Your task to perform on an android device: install app "Indeed Job Search" Image 0: 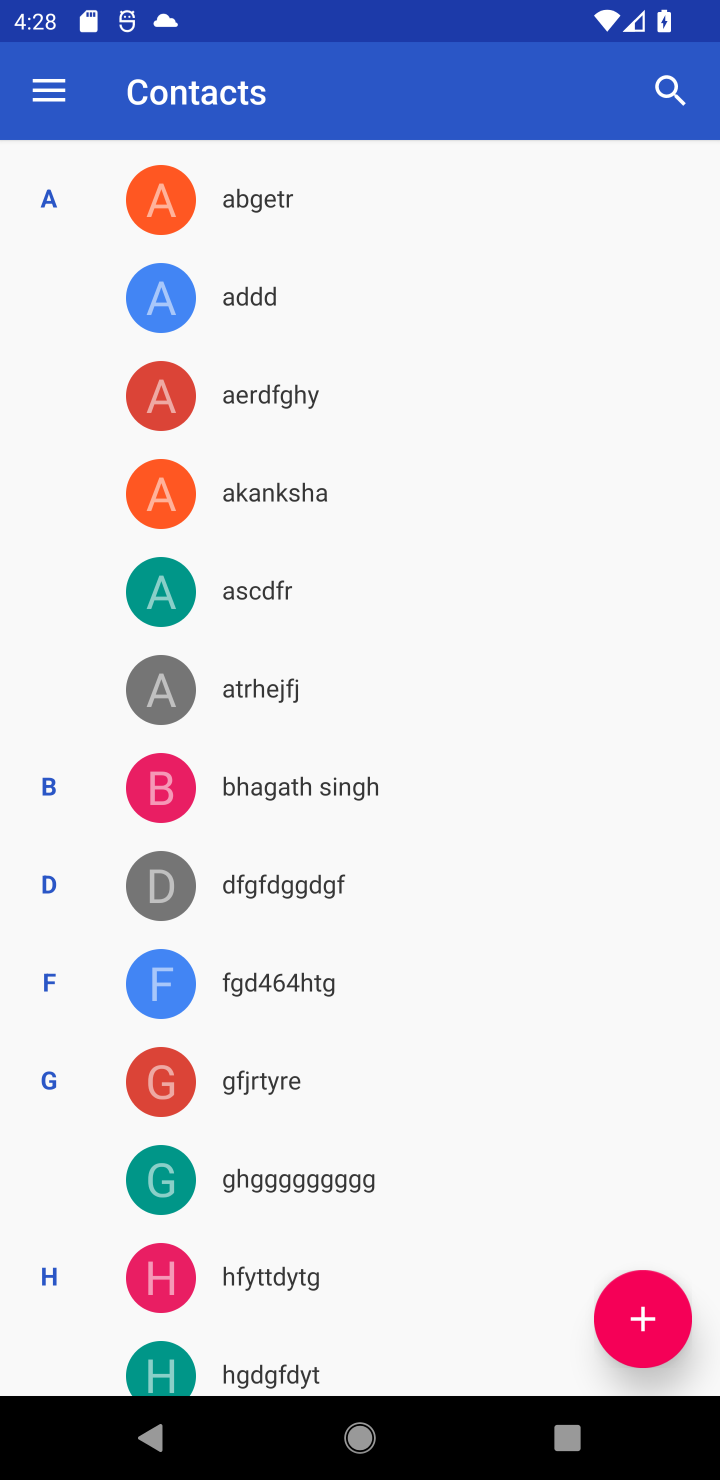
Step 0: press home button
Your task to perform on an android device: install app "Indeed Job Search" Image 1: 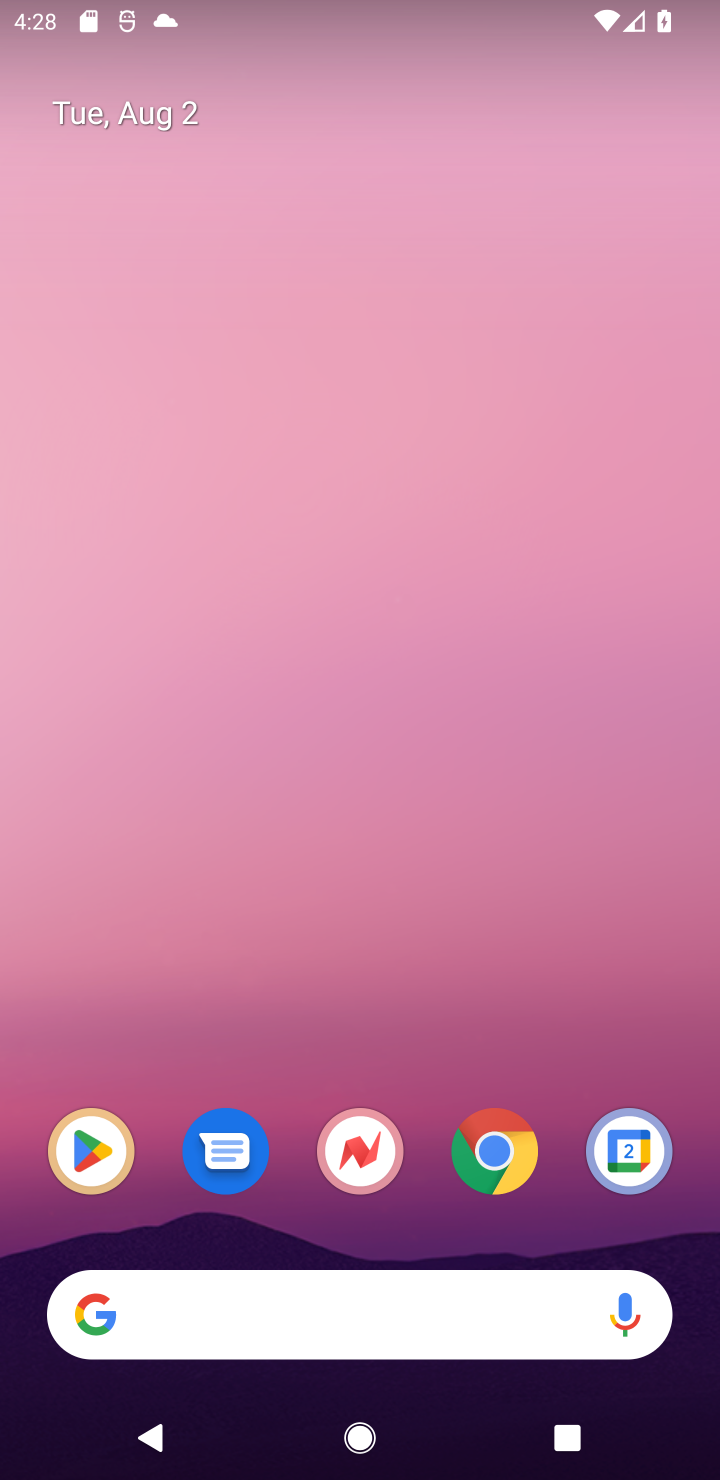
Step 1: drag from (416, 1276) to (458, 462)
Your task to perform on an android device: install app "Indeed Job Search" Image 2: 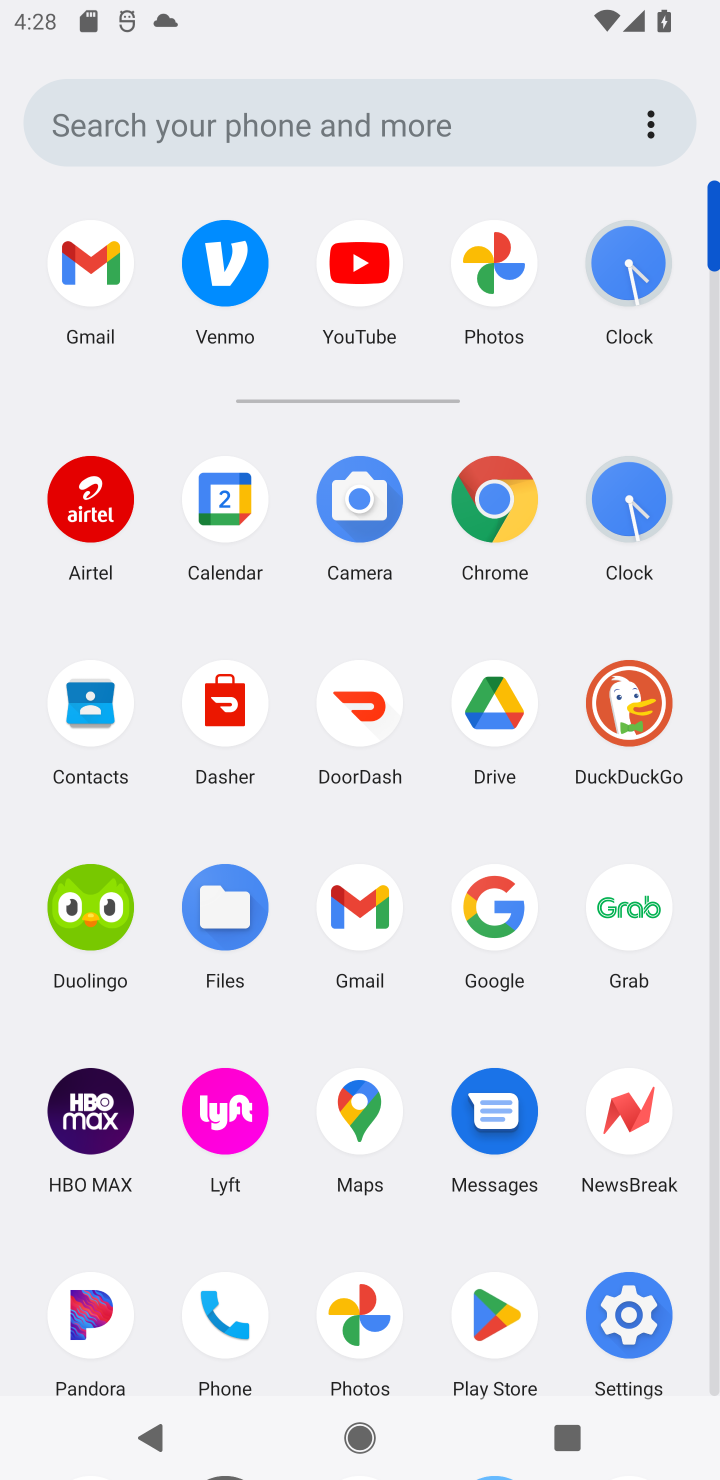
Step 2: click (521, 1323)
Your task to perform on an android device: install app "Indeed Job Search" Image 3: 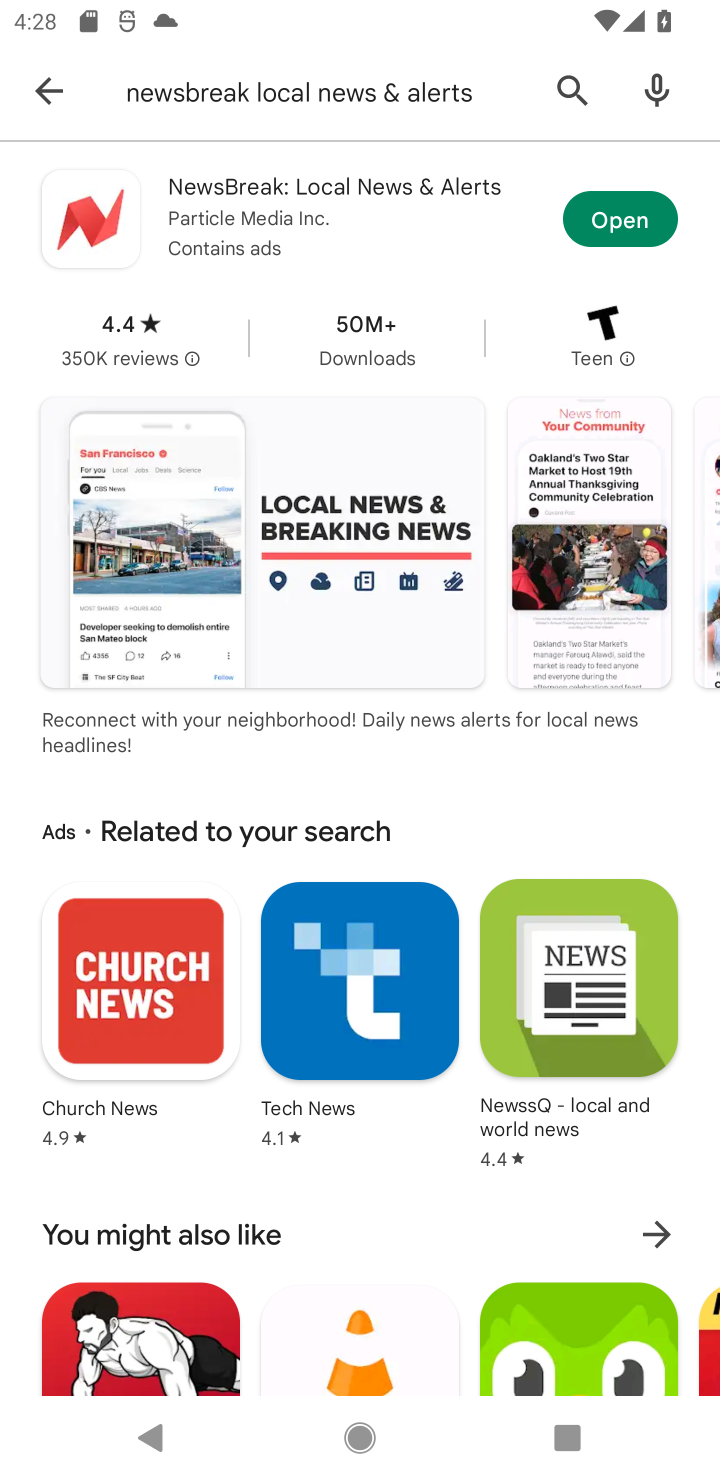
Step 3: click (40, 100)
Your task to perform on an android device: install app "Indeed Job Search" Image 4: 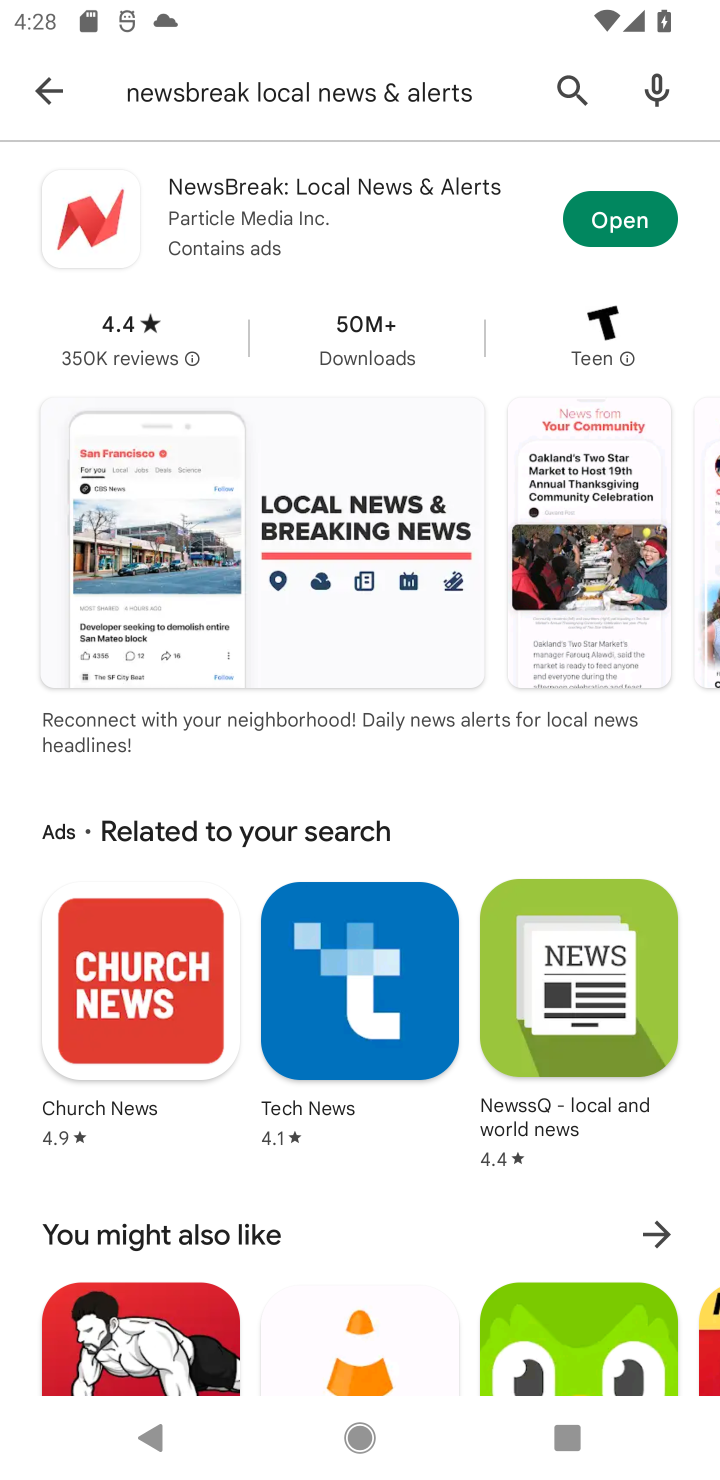
Step 4: click (53, 82)
Your task to perform on an android device: install app "Indeed Job Search" Image 5: 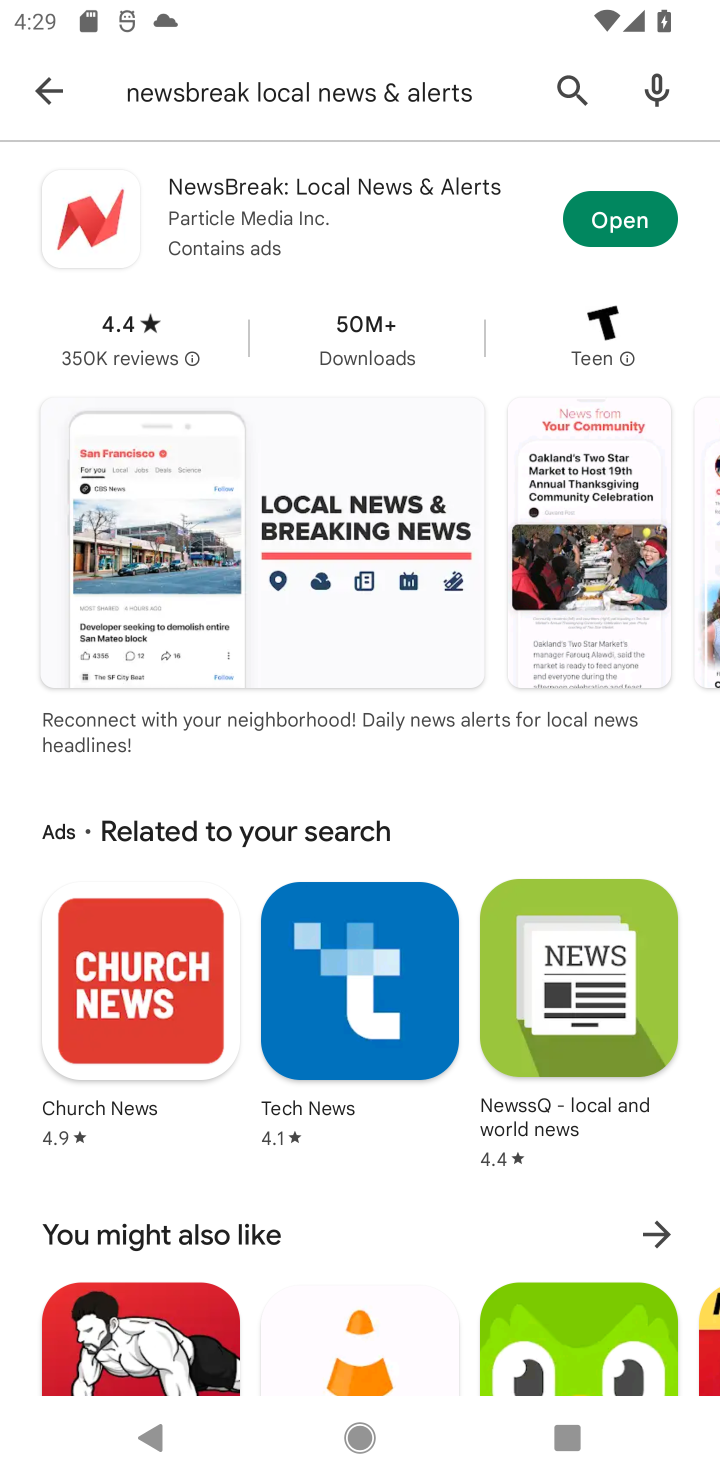
Step 5: click (53, 82)
Your task to perform on an android device: install app "Indeed Job Search" Image 6: 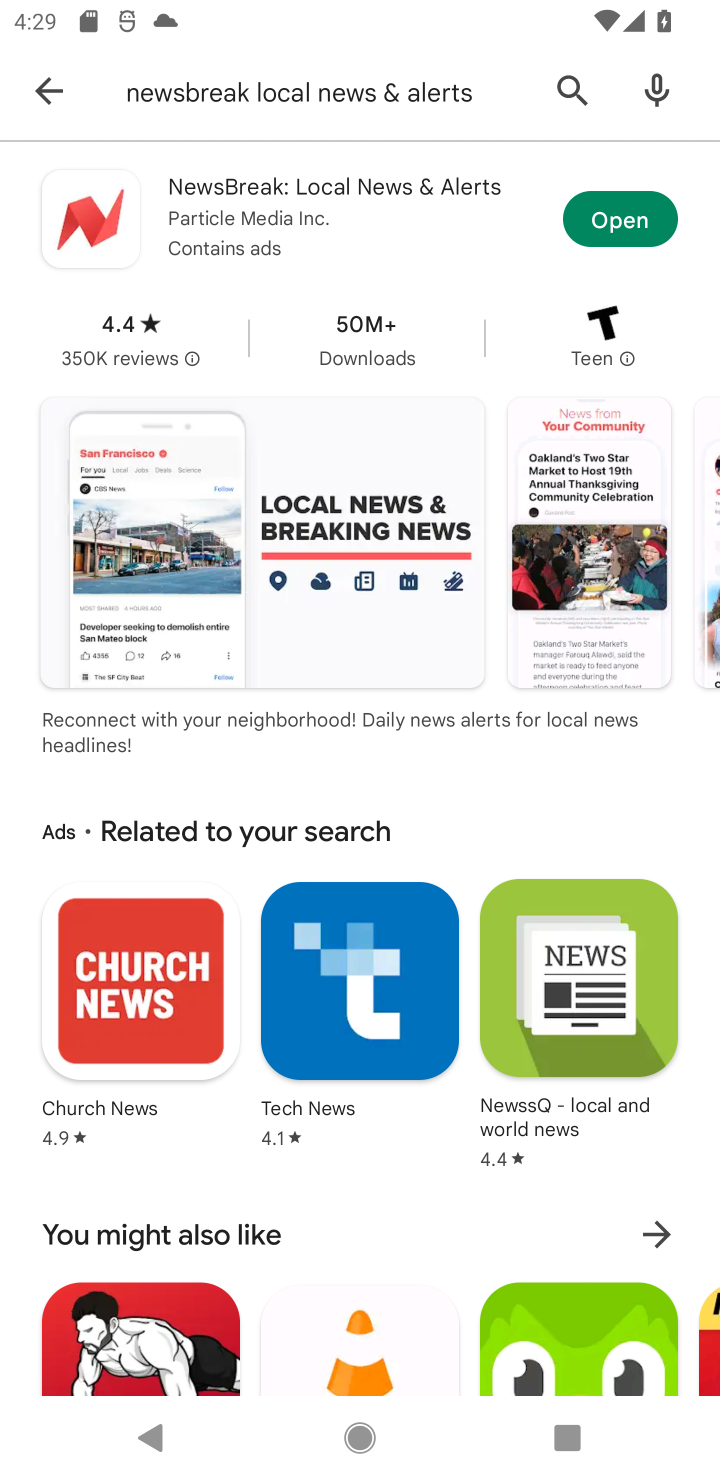
Step 6: click (53, 82)
Your task to perform on an android device: install app "Indeed Job Search" Image 7: 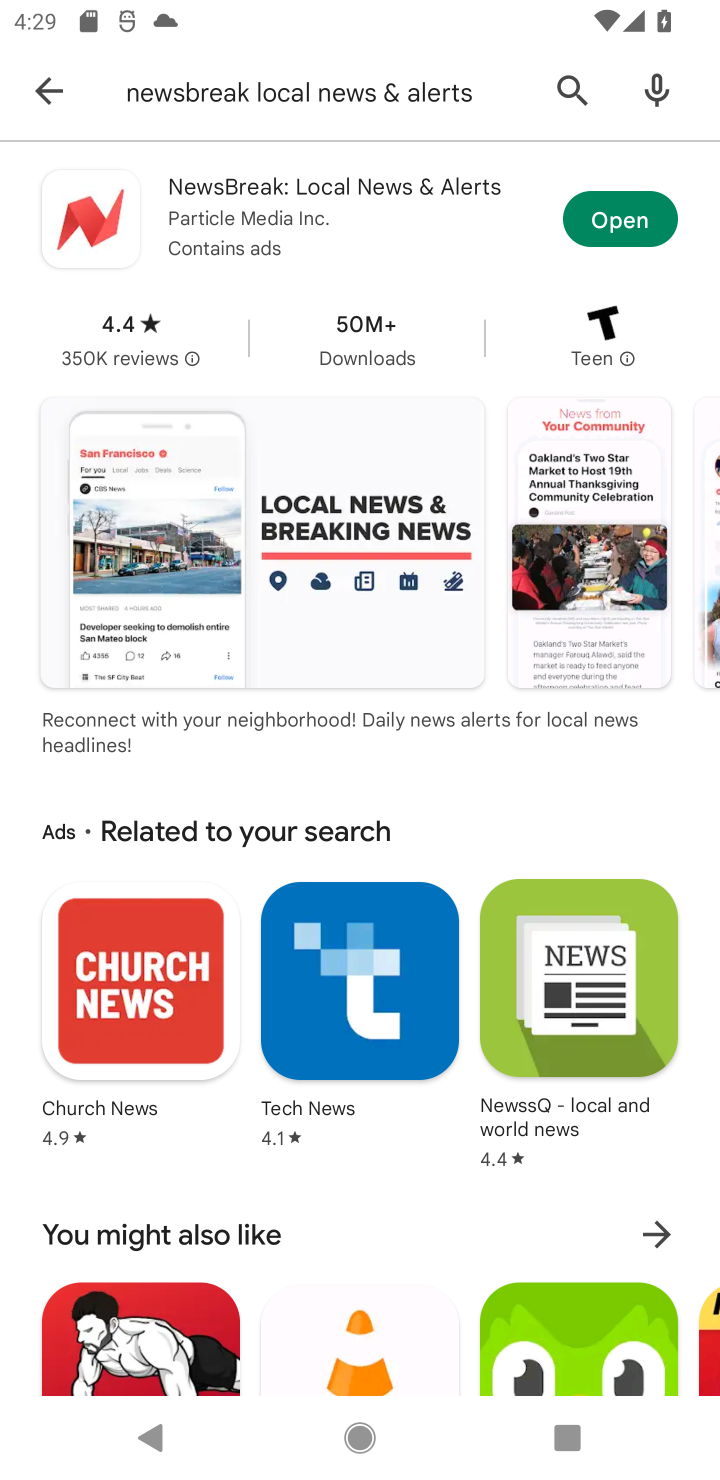
Step 7: click (53, 82)
Your task to perform on an android device: install app "Indeed Job Search" Image 8: 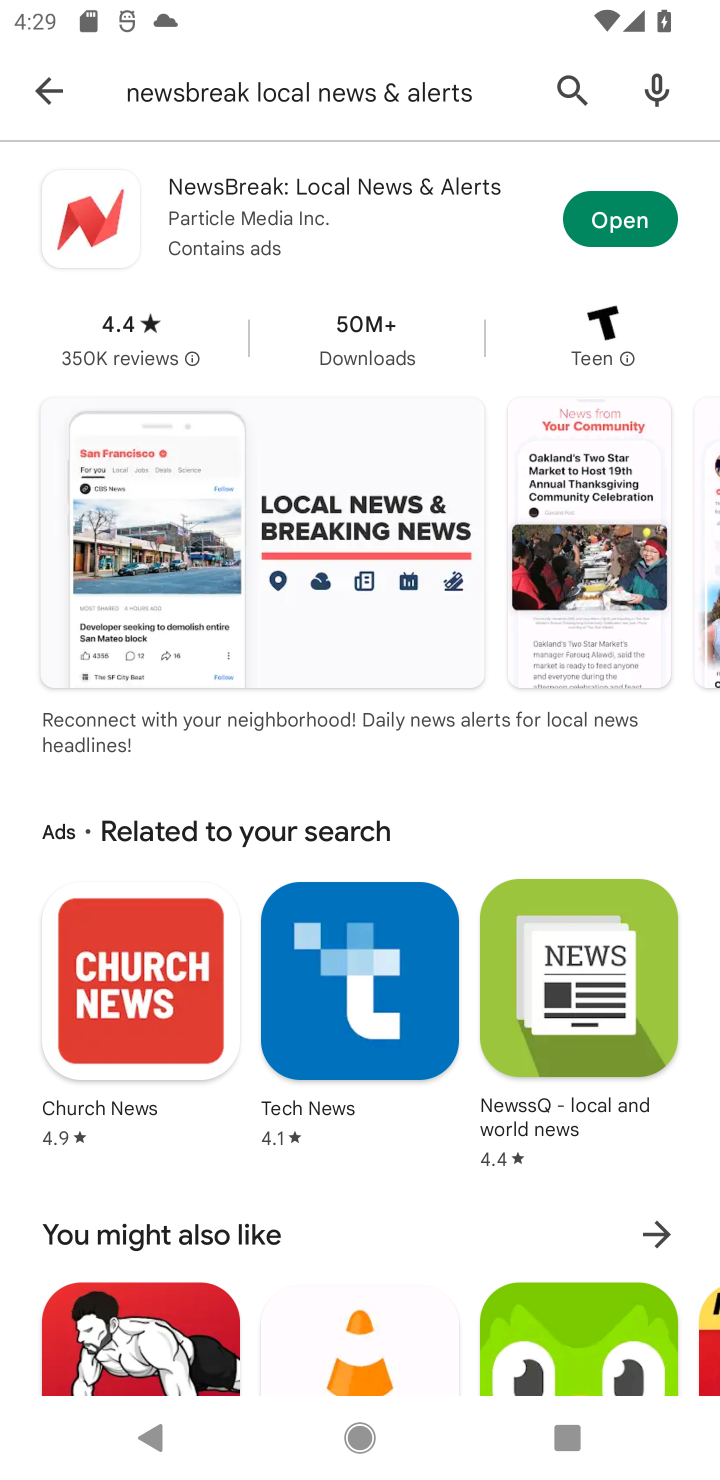
Step 8: drag from (263, 1230) to (255, 1320)
Your task to perform on an android device: install app "Indeed Job Search" Image 9: 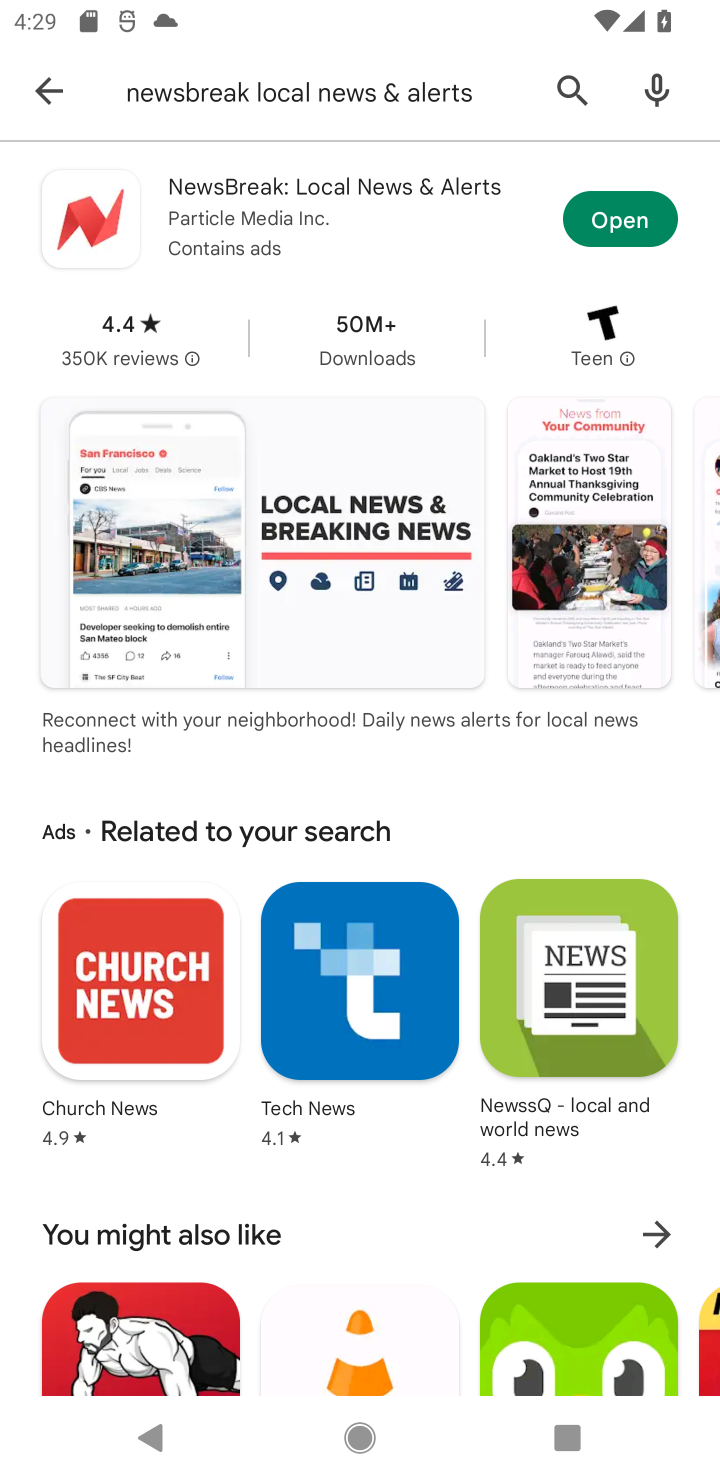
Step 9: click (52, 109)
Your task to perform on an android device: install app "Indeed Job Search" Image 10: 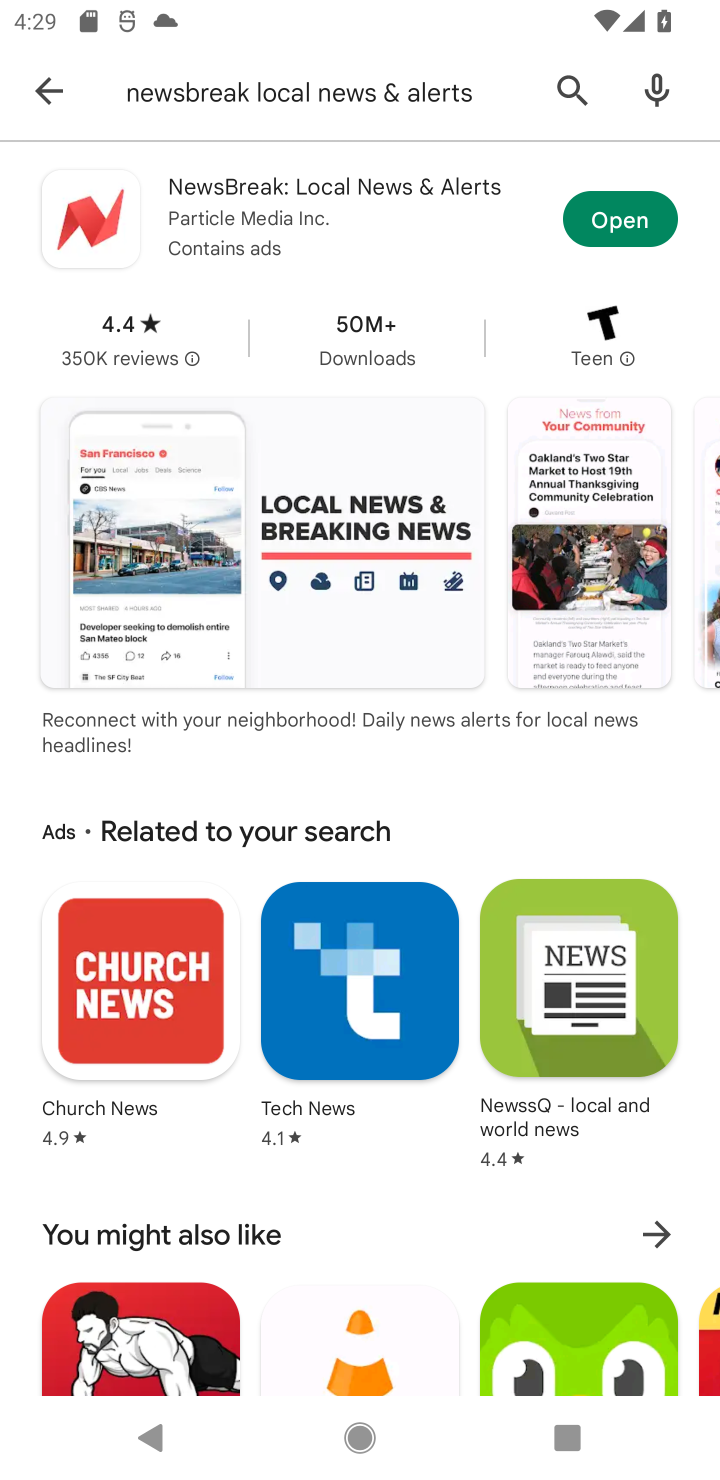
Step 10: click (52, 93)
Your task to perform on an android device: install app "Indeed Job Search" Image 11: 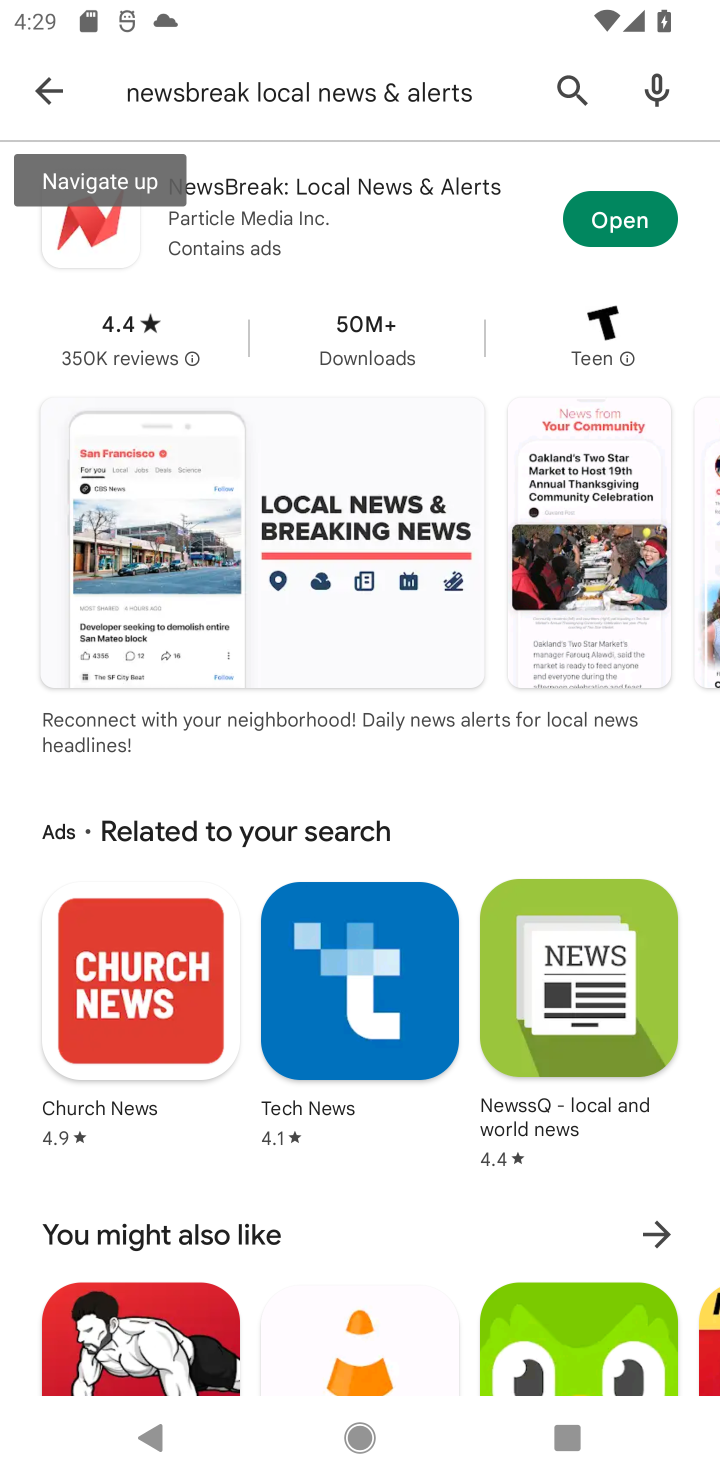
Step 11: drag from (360, 354) to (363, 1371)
Your task to perform on an android device: install app "Indeed Job Search" Image 12: 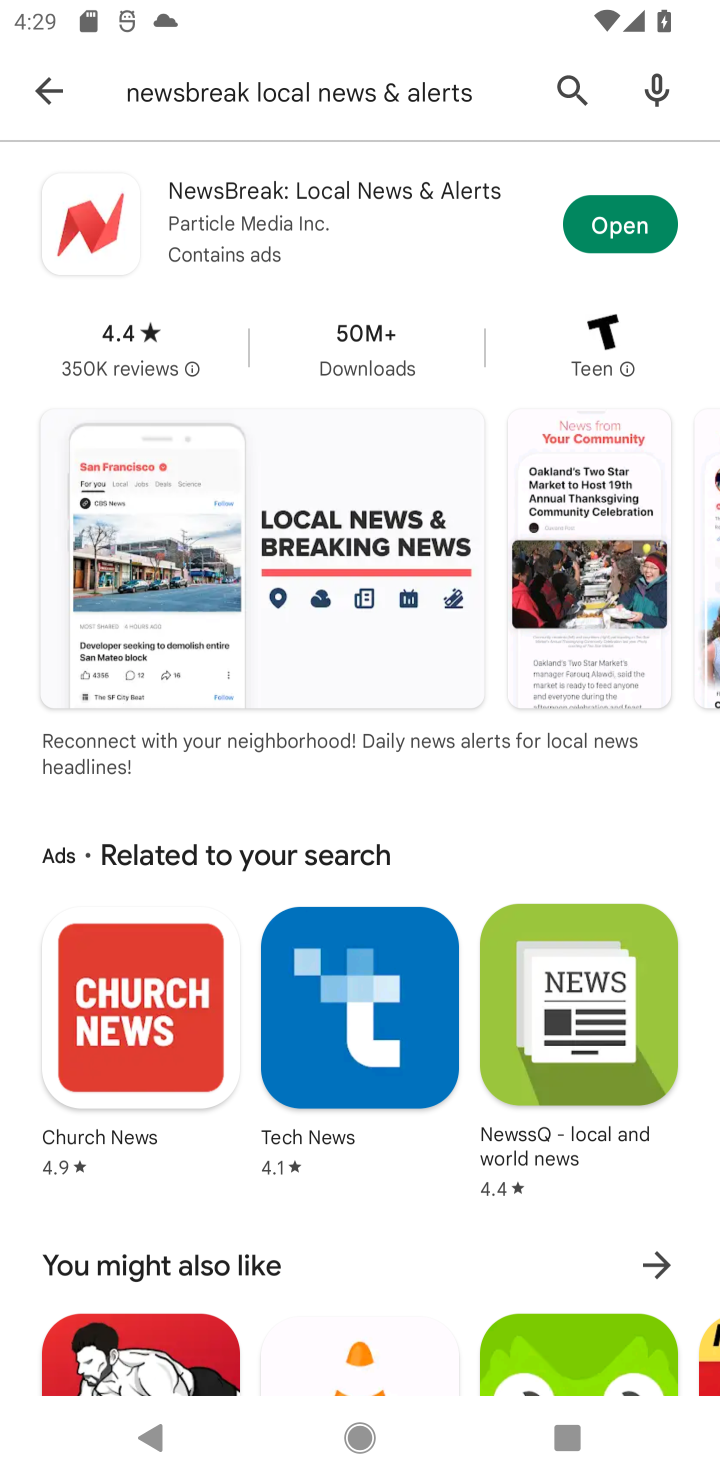
Step 12: drag from (389, 831) to (320, 1392)
Your task to perform on an android device: install app "Indeed Job Search" Image 13: 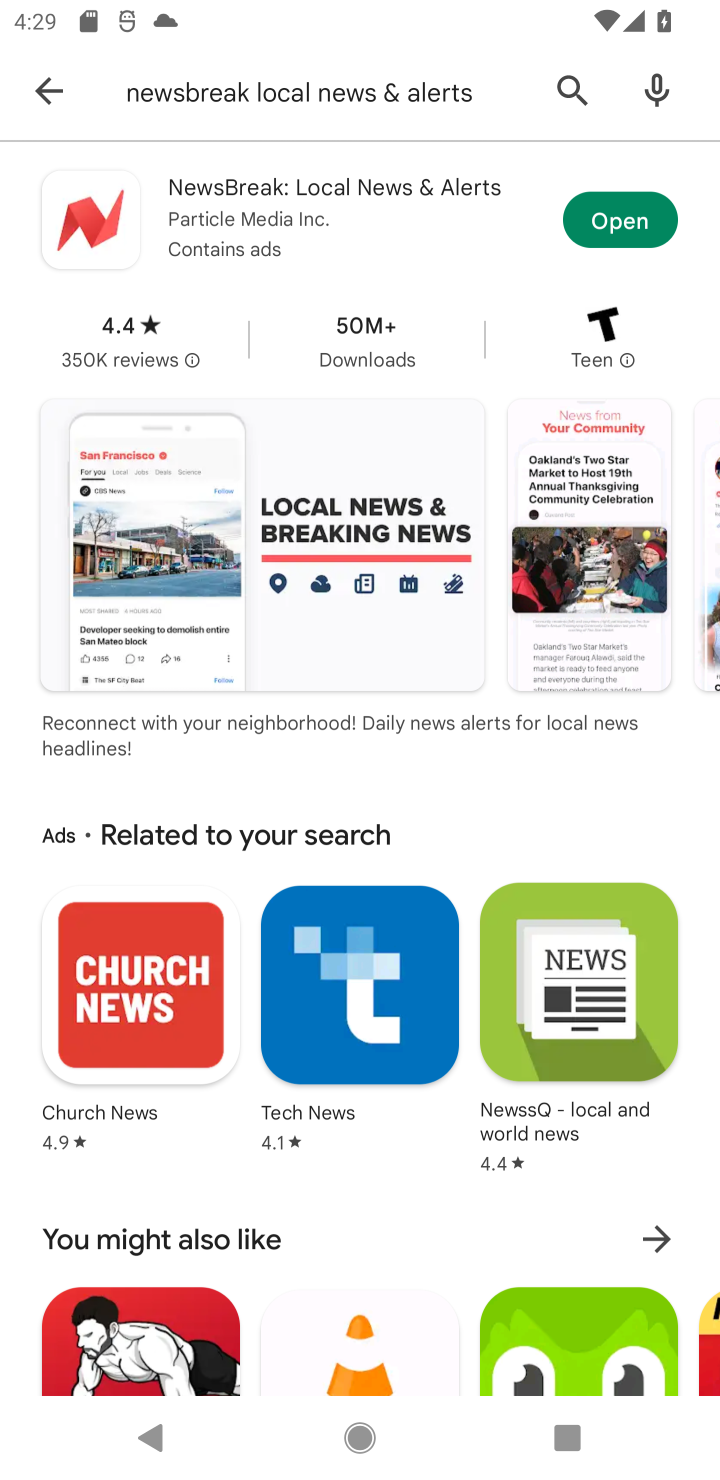
Step 13: click (47, 97)
Your task to perform on an android device: install app "Indeed Job Search" Image 14: 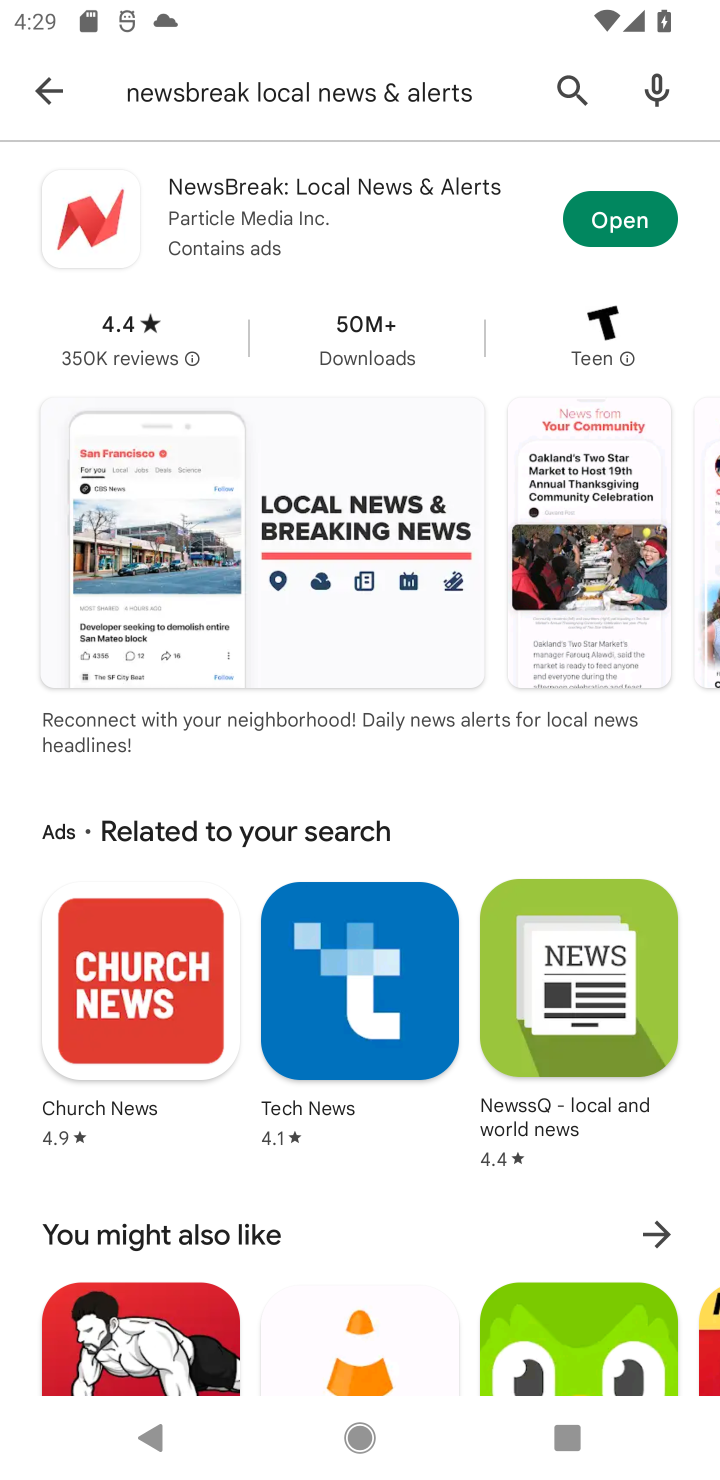
Step 14: press back button
Your task to perform on an android device: install app "Indeed Job Search" Image 15: 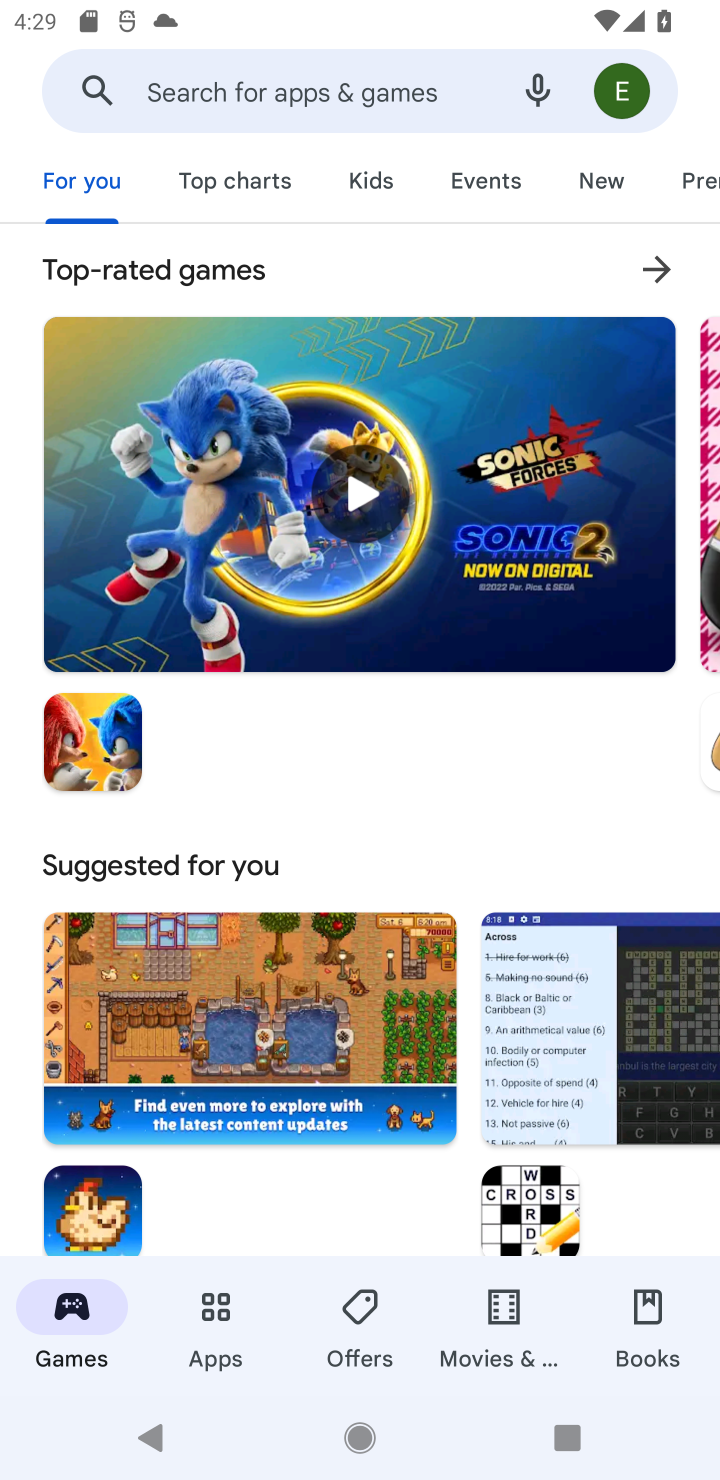
Step 15: click (330, 114)
Your task to perform on an android device: install app "Indeed Job Search" Image 16: 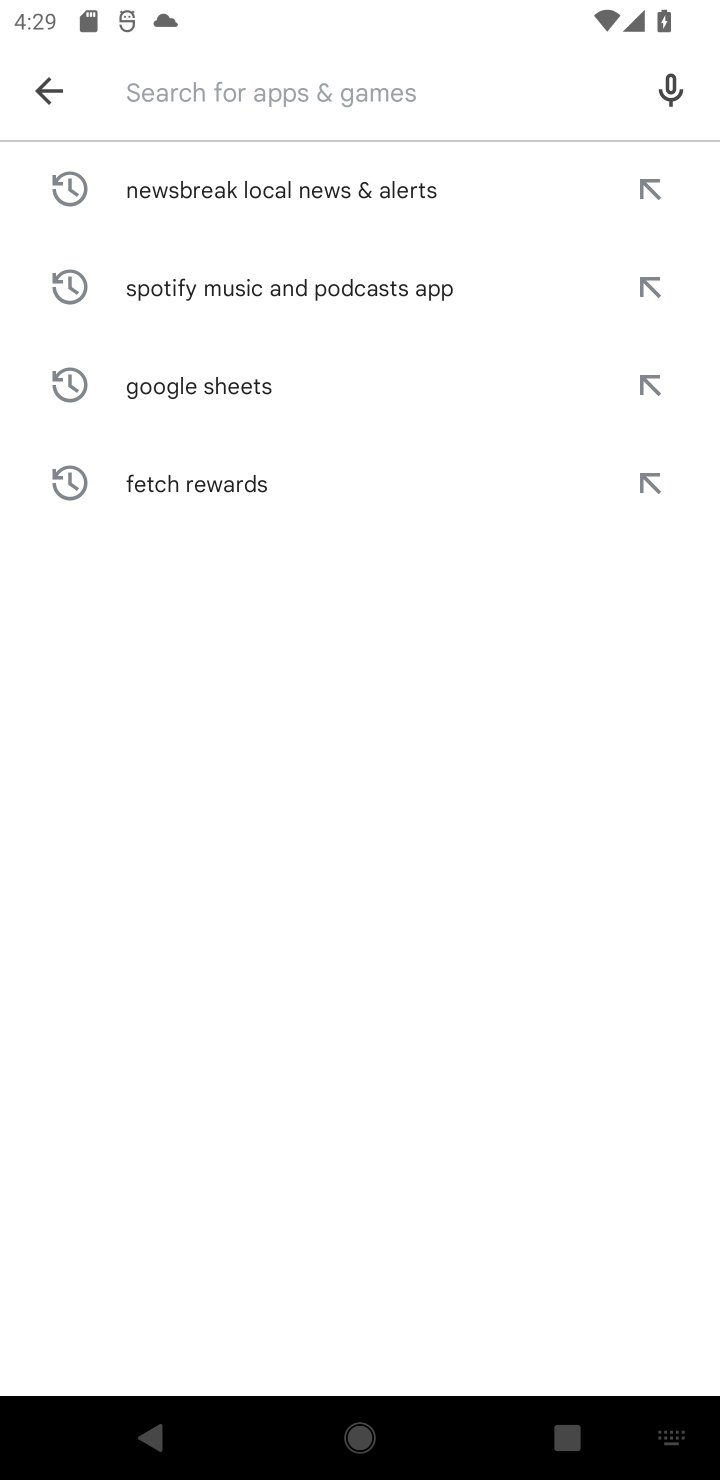
Step 16: type ""
Your task to perform on an android device: install app "Indeed Job Search" Image 17: 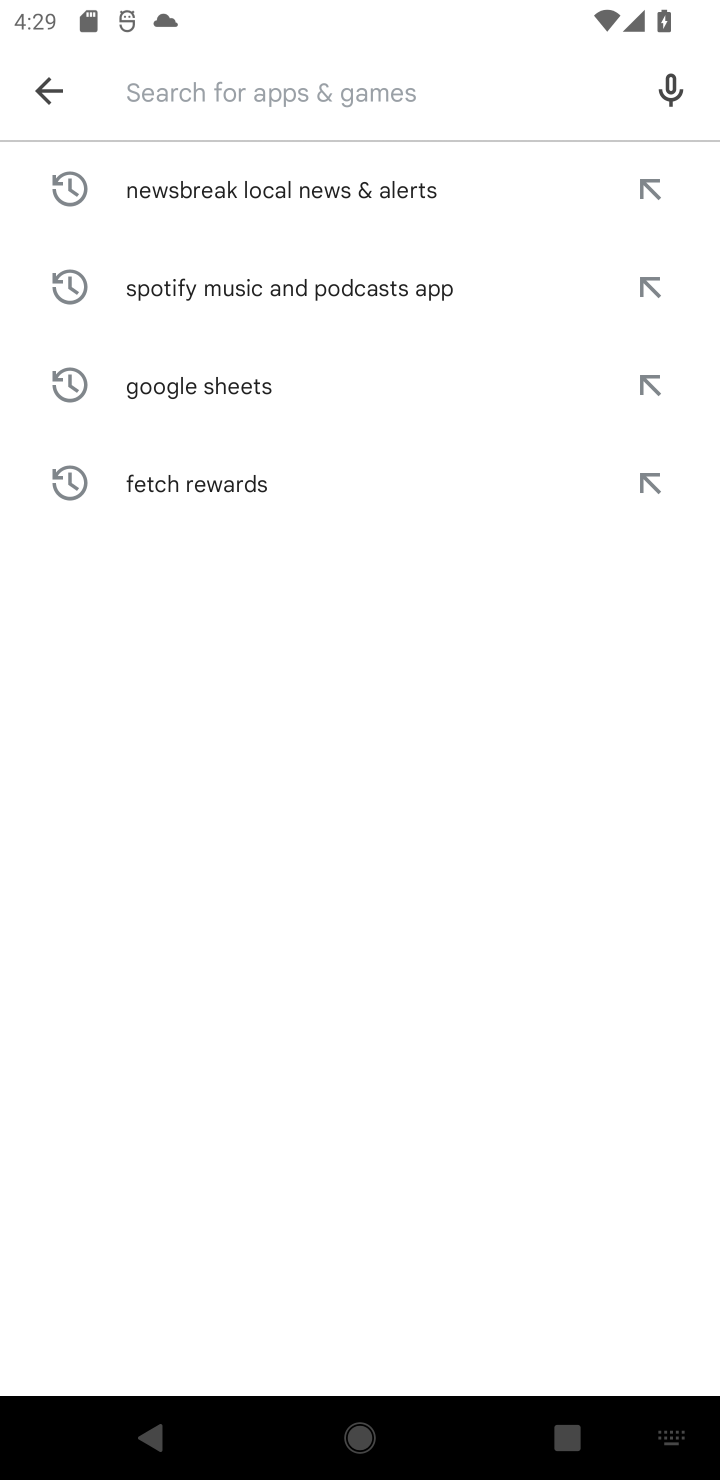
Step 17: type "Indeed Job Search"
Your task to perform on an android device: install app "Indeed Job Search" Image 18: 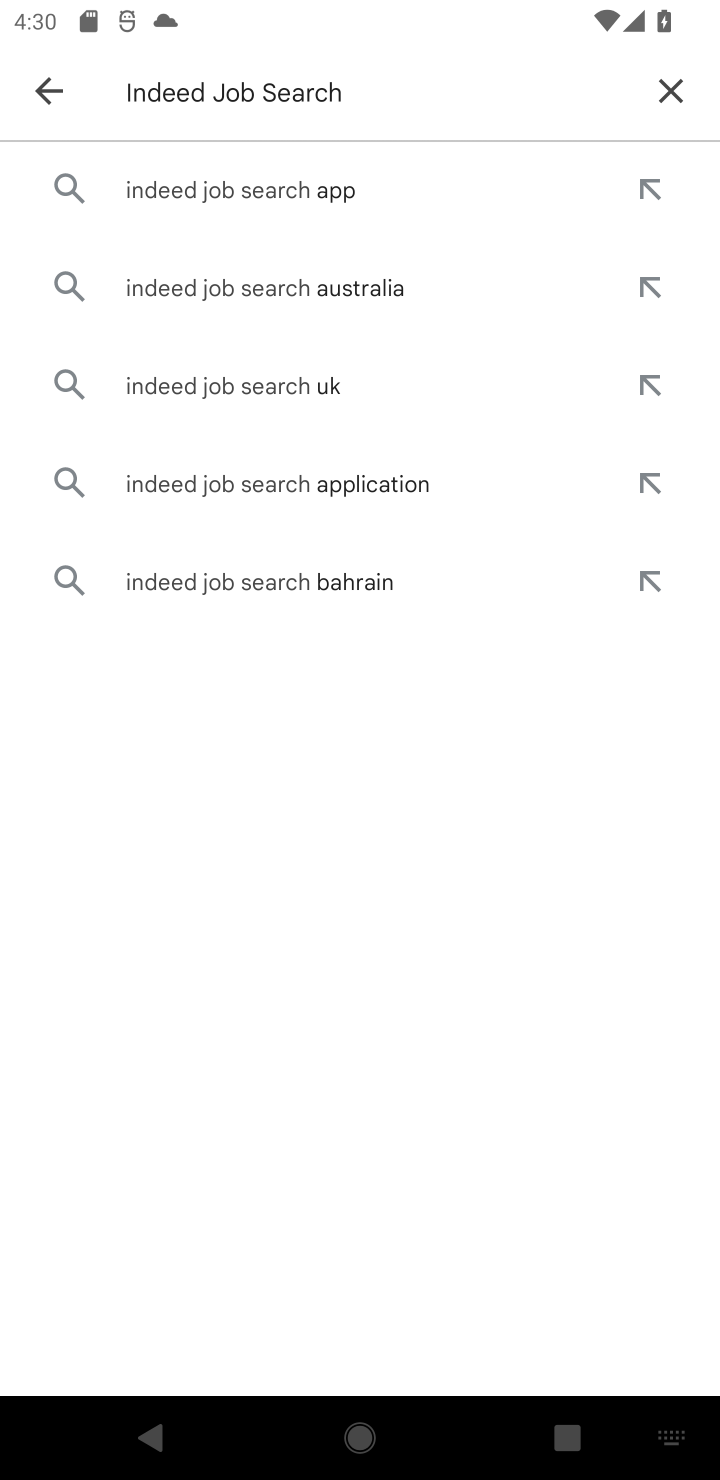
Step 18: click (195, 186)
Your task to perform on an android device: install app "Indeed Job Search" Image 19: 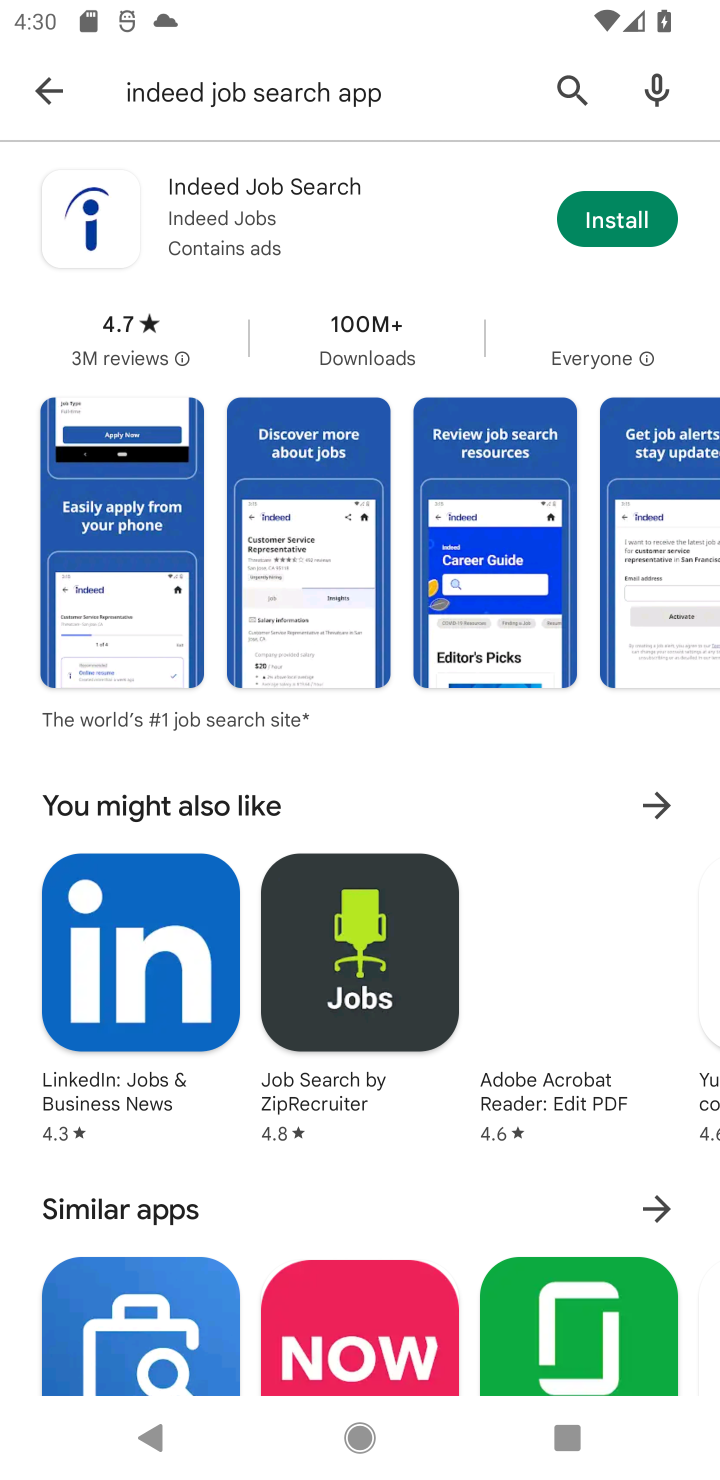
Step 19: click (638, 217)
Your task to perform on an android device: install app "Indeed Job Search" Image 20: 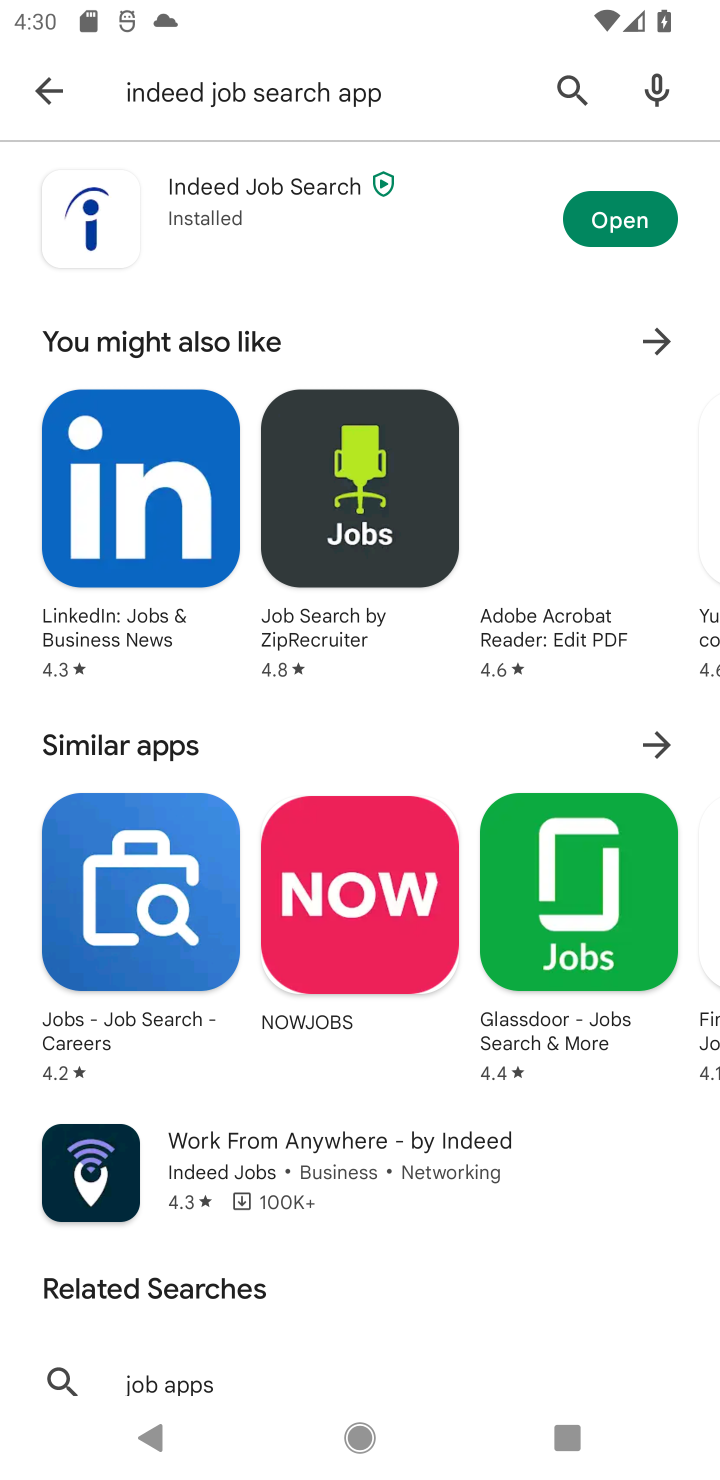
Step 20: task complete